Your task to perform on an android device: install app "Google Play Music" Image 0: 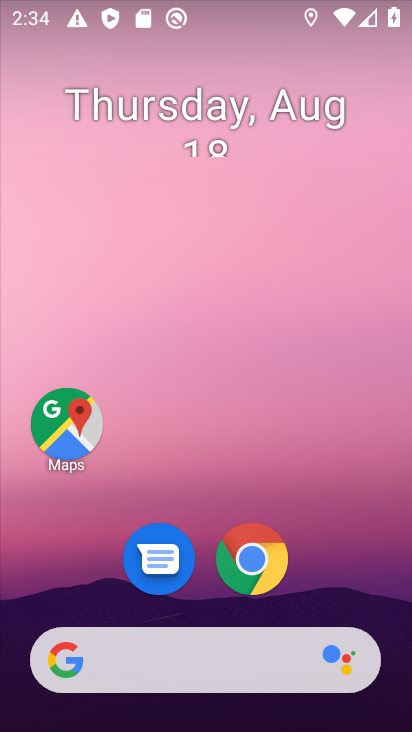
Step 0: drag from (239, 607) to (353, 102)
Your task to perform on an android device: install app "Google Play Music" Image 1: 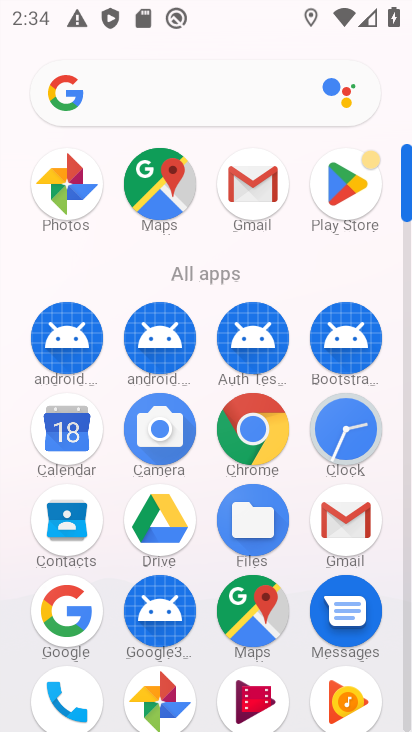
Step 1: click (338, 174)
Your task to perform on an android device: install app "Google Play Music" Image 2: 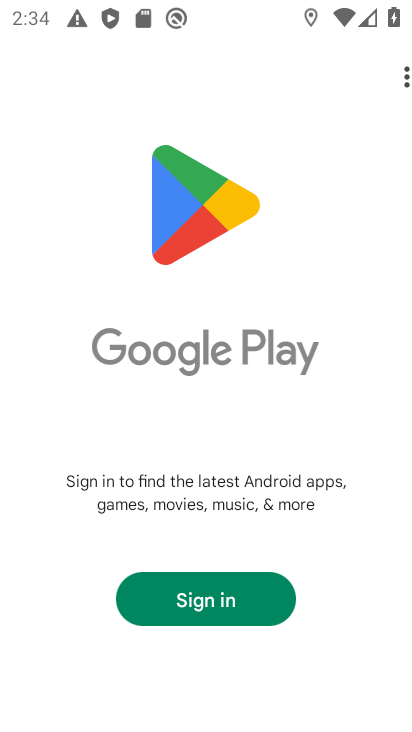
Step 2: click (226, 598)
Your task to perform on an android device: install app "Google Play Music" Image 3: 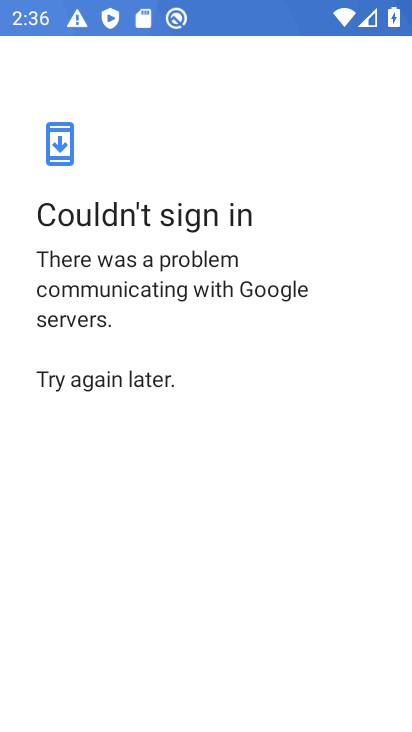
Step 3: task complete